Your task to perform on an android device: turn off location history Image 0: 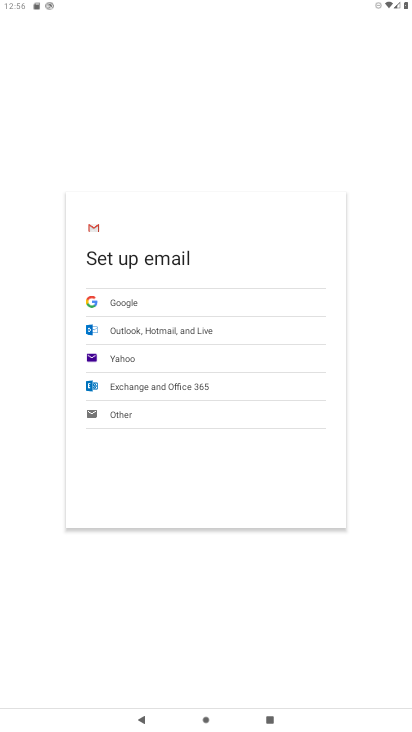
Step 0: press home button
Your task to perform on an android device: turn off location history Image 1: 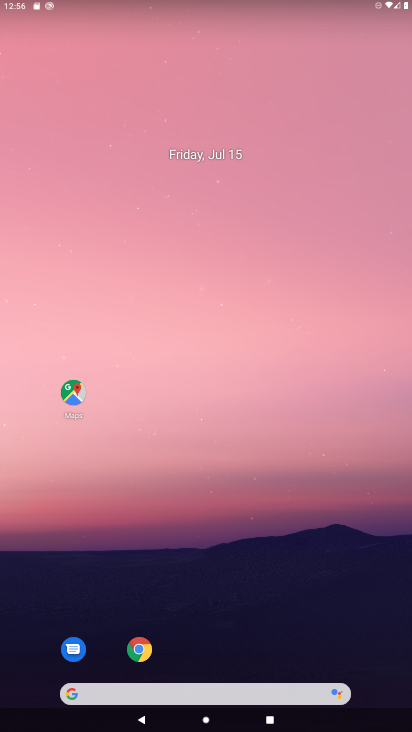
Step 1: drag from (236, 588) to (228, 203)
Your task to perform on an android device: turn off location history Image 2: 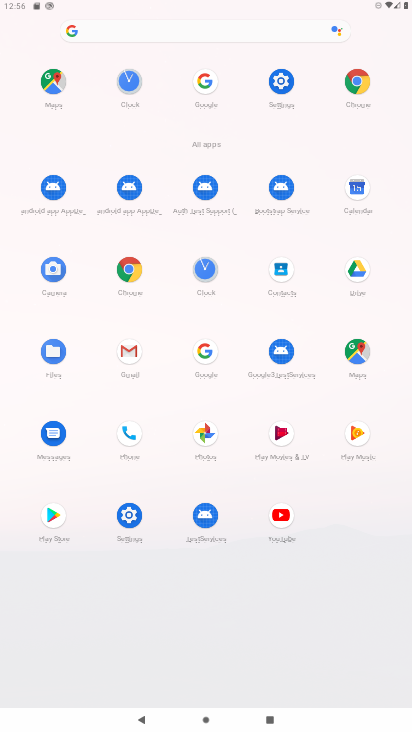
Step 2: click (271, 78)
Your task to perform on an android device: turn off location history Image 3: 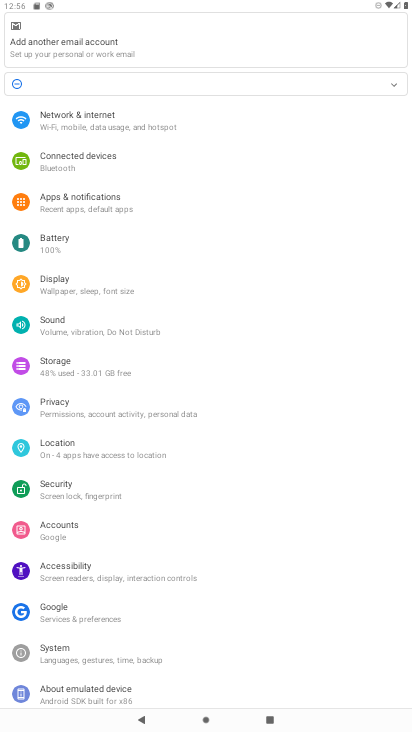
Step 3: click (89, 441)
Your task to perform on an android device: turn off location history Image 4: 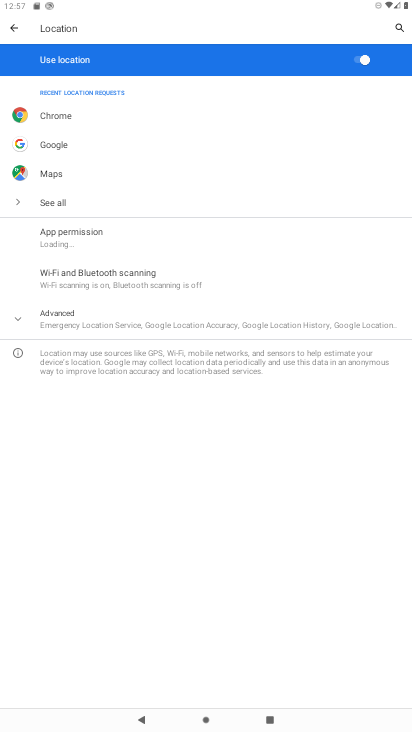
Step 4: click (129, 319)
Your task to perform on an android device: turn off location history Image 5: 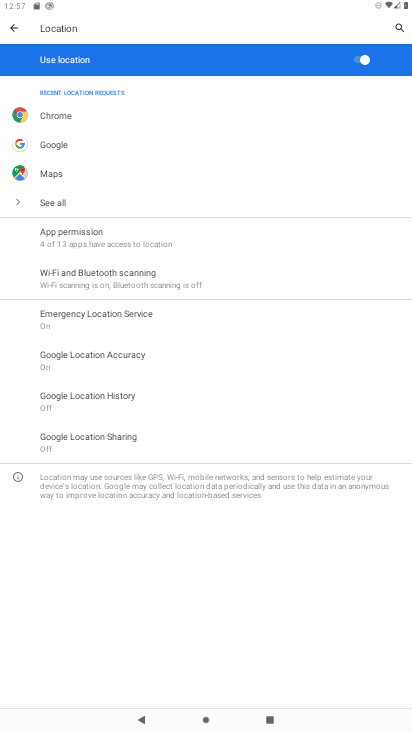
Step 5: click (131, 405)
Your task to perform on an android device: turn off location history Image 6: 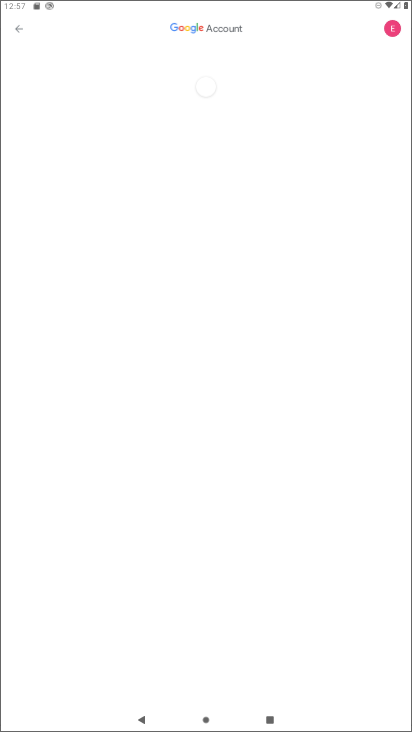
Step 6: task complete